Your task to perform on an android device: show emergency info Image 0: 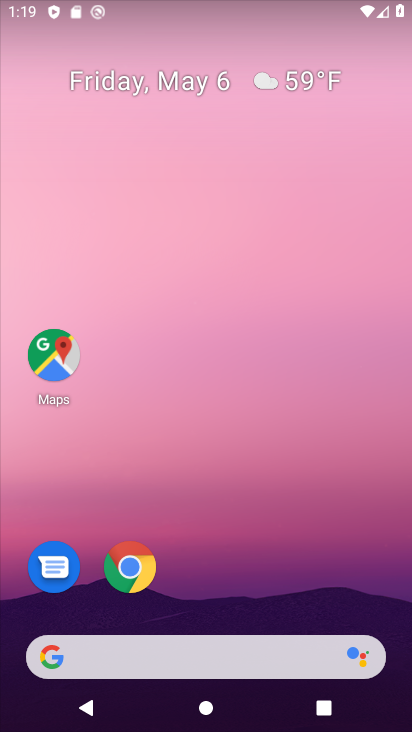
Step 0: drag from (311, 563) to (272, 107)
Your task to perform on an android device: show emergency info Image 1: 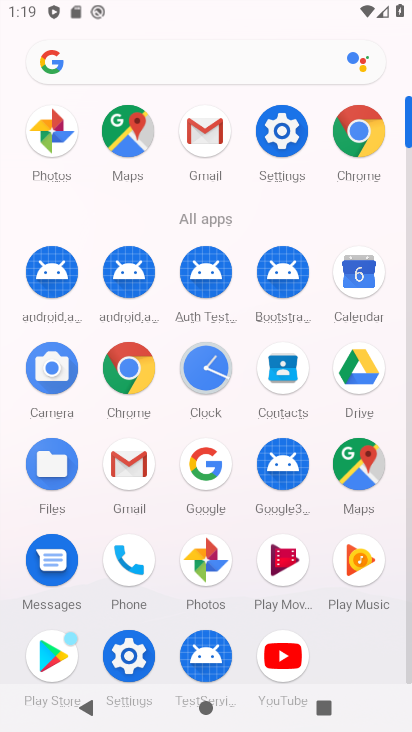
Step 1: click (280, 133)
Your task to perform on an android device: show emergency info Image 2: 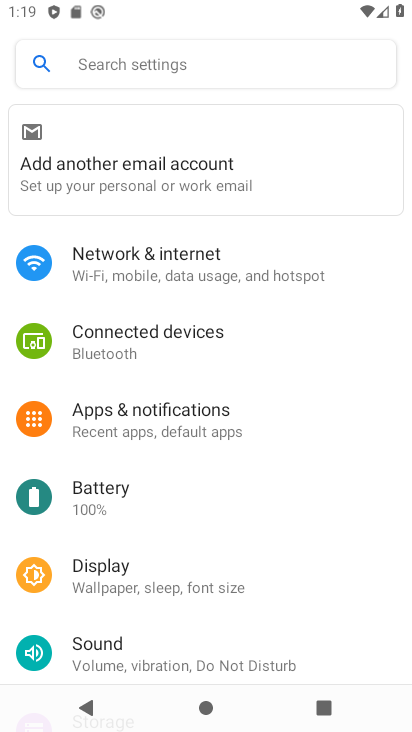
Step 2: drag from (184, 648) to (166, 65)
Your task to perform on an android device: show emergency info Image 3: 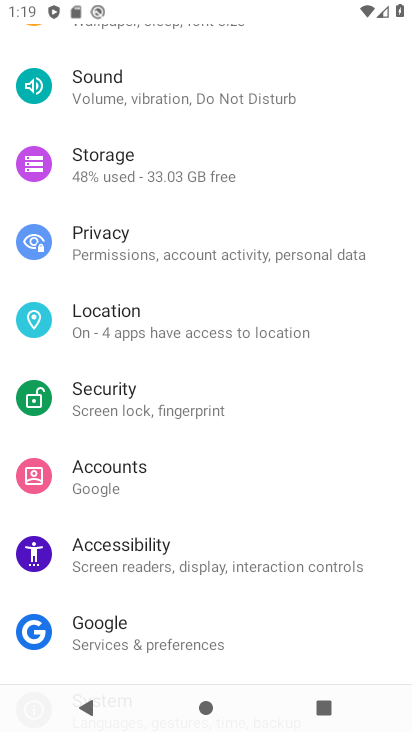
Step 3: drag from (200, 374) to (180, 4)
Your task to perform on an android device: show emergency info Image 4: 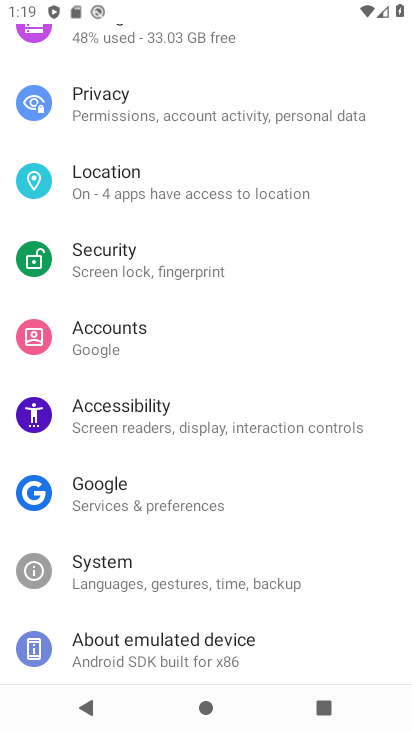
Step 4: click (204, 641)
Your task to perform on an android device: show emergency info Image 5: 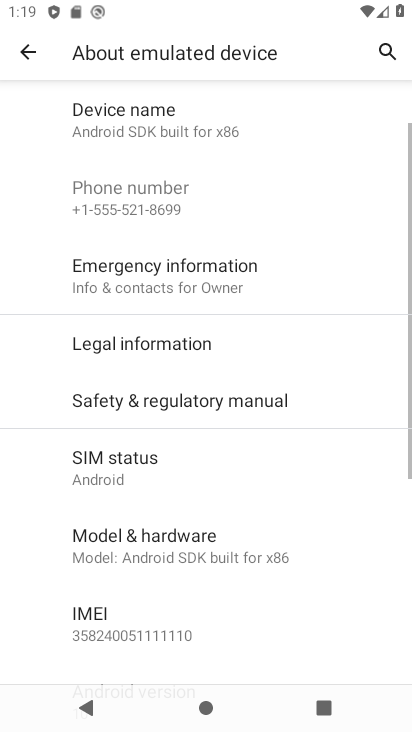
Step 5: click (171, 277)
Your task to perform on an android device: show emergency info Image 6: 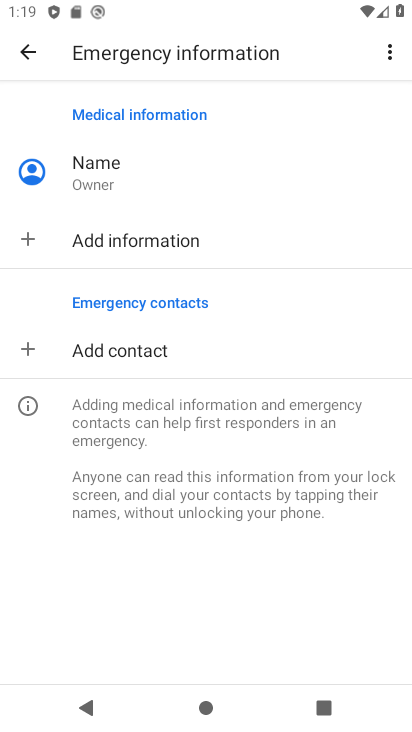
Step 6: task complete